Your task to perform on an android device: Search for sushi restaurants on Maps Image 0: 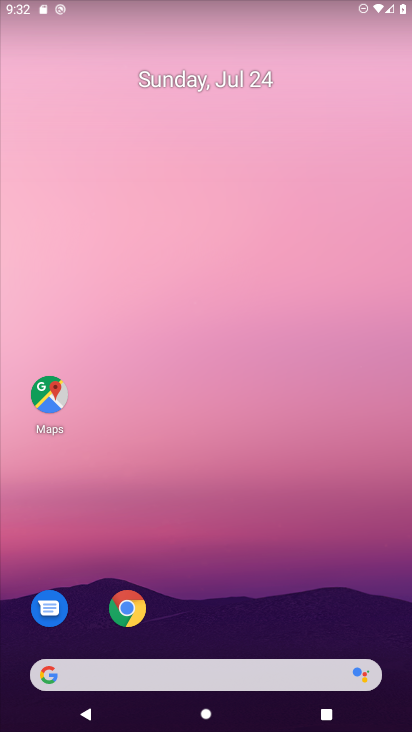
Step 0: drag from (143, 449) to (136, 131)
Your task to perform on an android device: Search for sushi restaurants on Maps Image 1: 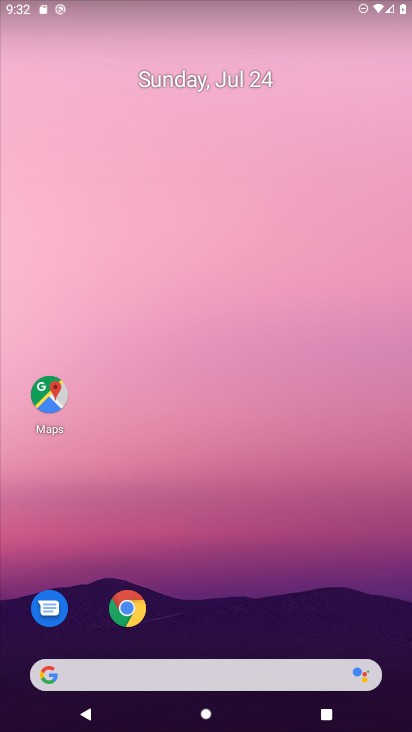
Step 1: click (36, 393)
Your task to perform on an android device: Search for sushi restaurants on Maps Image 2: 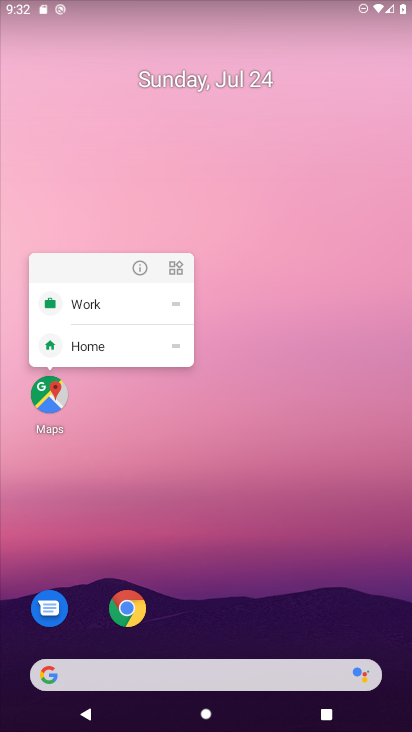
Step 2: click (131, 260)
Your task to perform on an android device: Search for sushi restaurants on Maps Image 3: 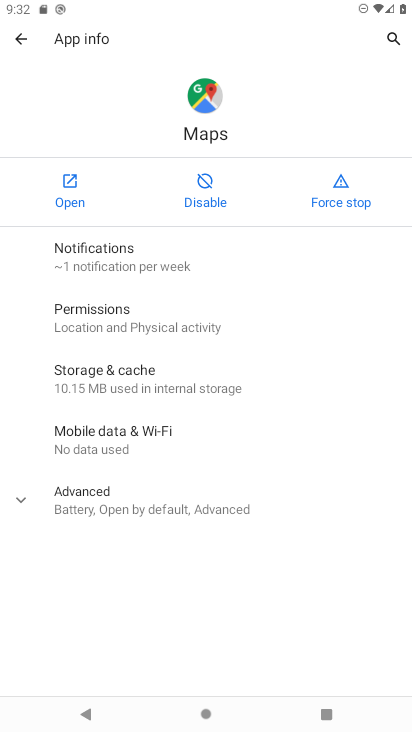
Step 3: click (47, 209)
Your task to perform on an android device: Search for sushi restaurants on Maps Image 4: 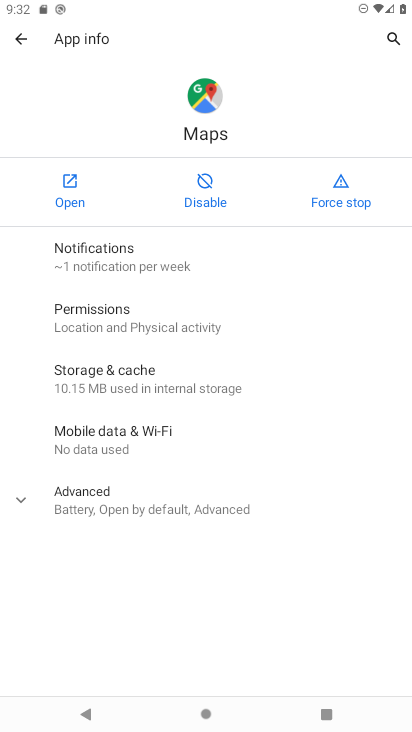
Step 4: click (62, 189)
Your task to perform on an android device: Search for sushi restaurants on Maps Image 5: 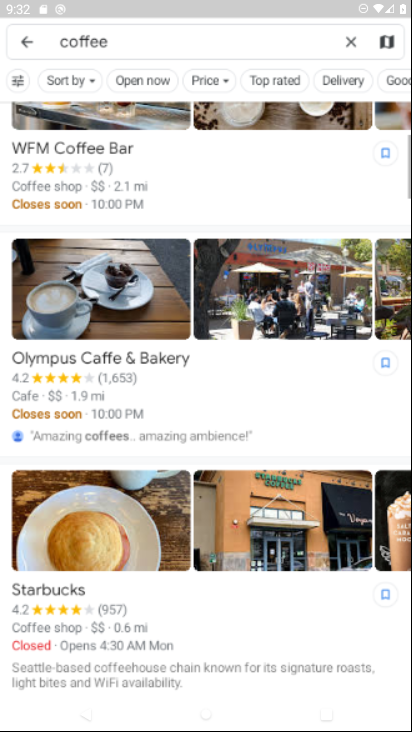
Step 5: drag from (257, 462) to (267, 217)
Your task to perform on an android device: Search for sushi restaurants on Maps Image 6: 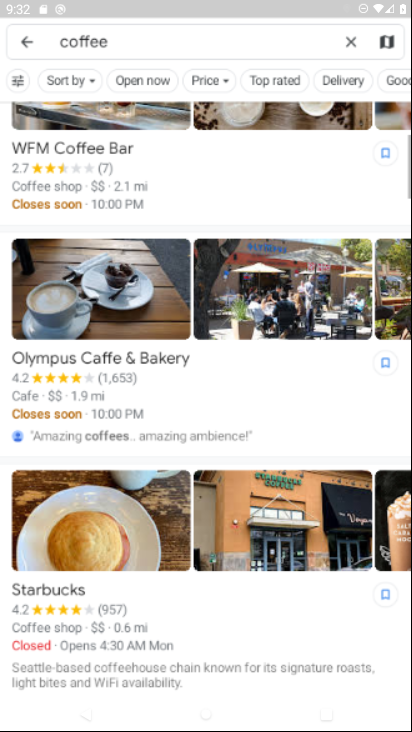
Step 6: drag from (252, 169) to (240, 517)
Your task to perform on an android device: Search for sushi restaurants on Maps Image 7: 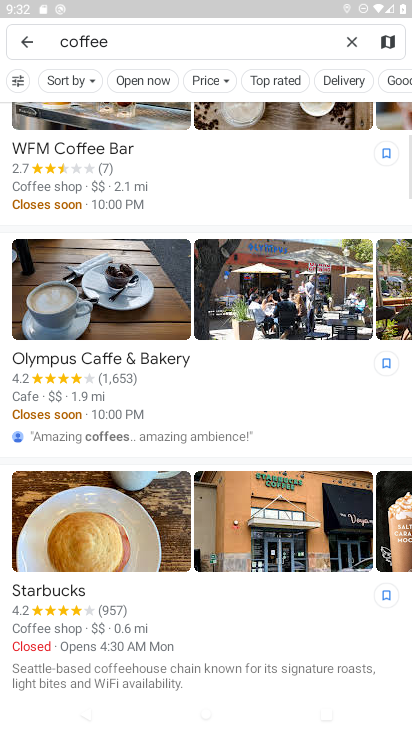
Step 7: click (350, 48)
Your task to perform on an android device: Search for sushi restaurants on Maps Image 8: 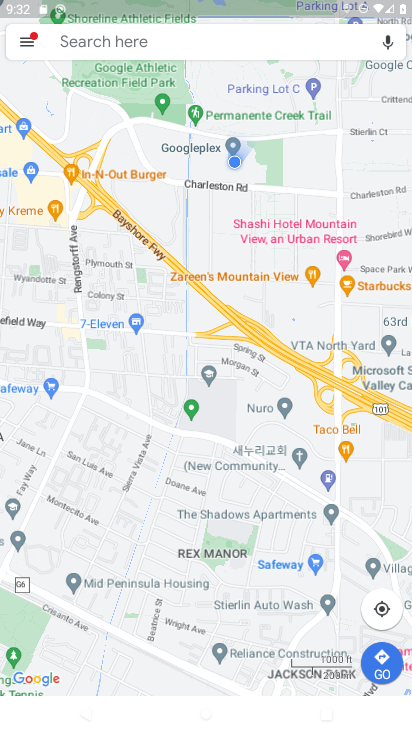
Step 8: click (79, 40)
Your task to perform on an android device: Search for sushi restaurants on Maps Image 9: 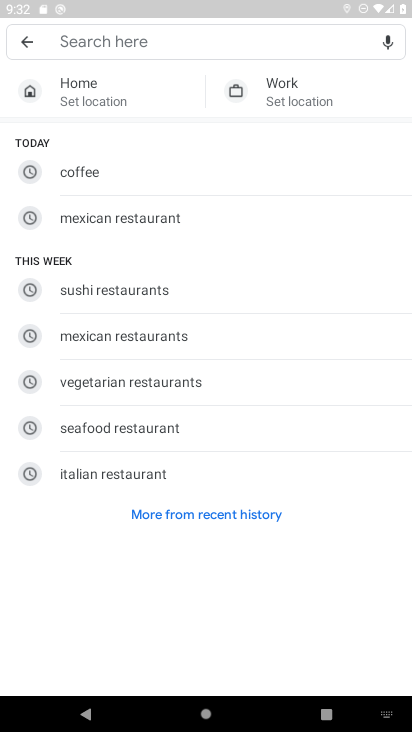
Step 9: click (102, 295)
Your task to perform on an android device: Search for sushi restaurants on Maps Image 10: 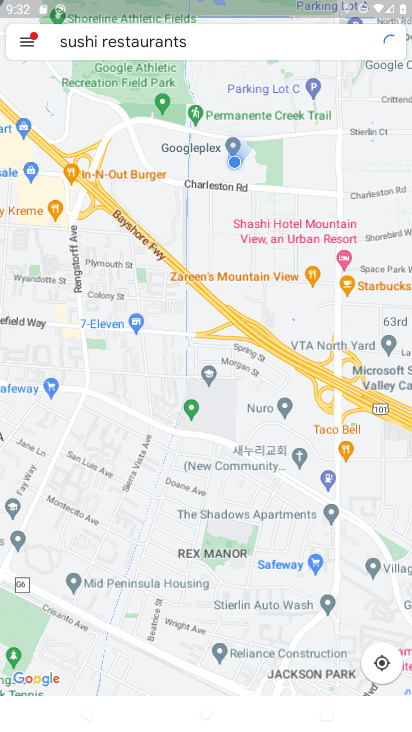
Step 10: task complete